Your task to perform on an android device: check the backup settings in the google photos Image 0: 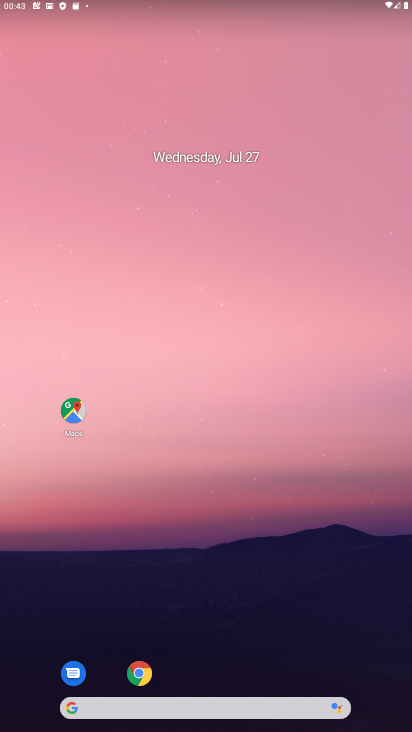
Step 0: drag from (211, 666) to (205, 209)
Your task to perform on an android device: check the backup settings in the google photos Image 1: 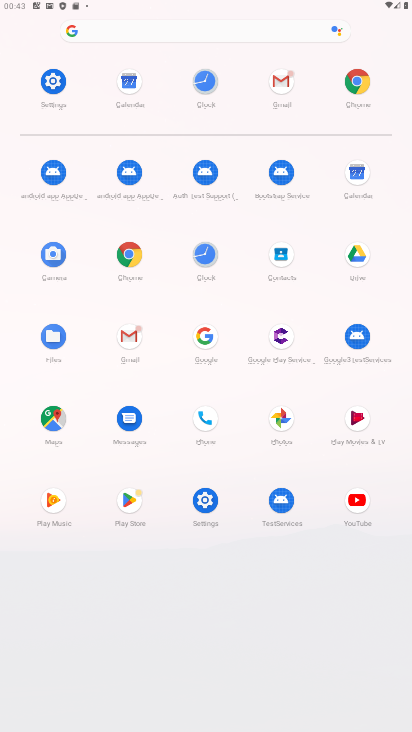
Step 1: click (287, 414)
Your task to perform on an android device: check the backup settings in the google photos Image 2: 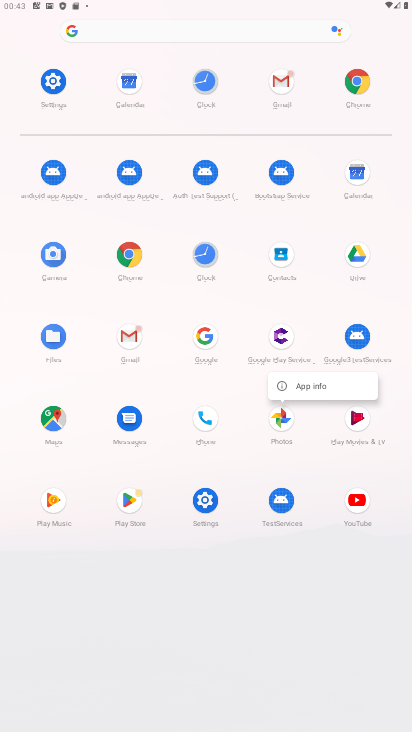
Step 2: click (287, 416)
Your task to perform on an android device: check the backup settings in the google photos Image 3: 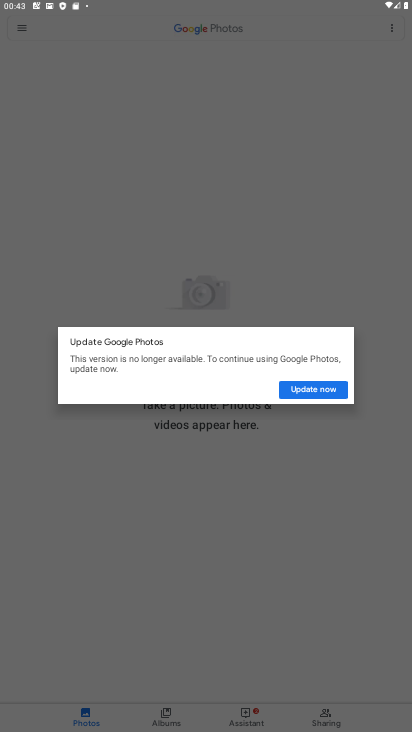
Step 3: click (290, 388)
Your task to perform on an android device: check the backup settings in the google photos Image 4: 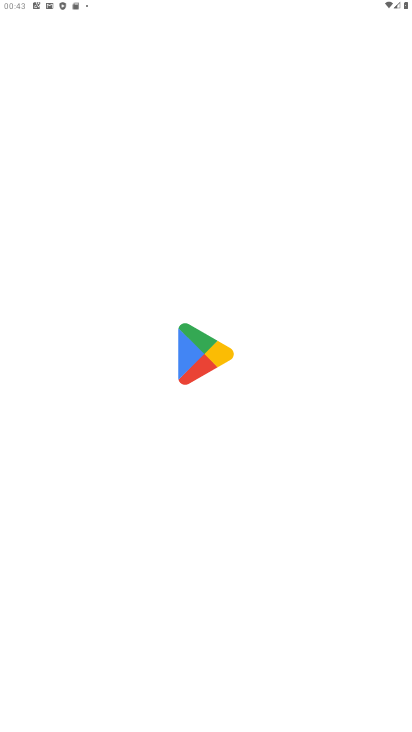
Step 4: press back button
Your task to perform on an android device: check the backup settings in the google photos Image 5: 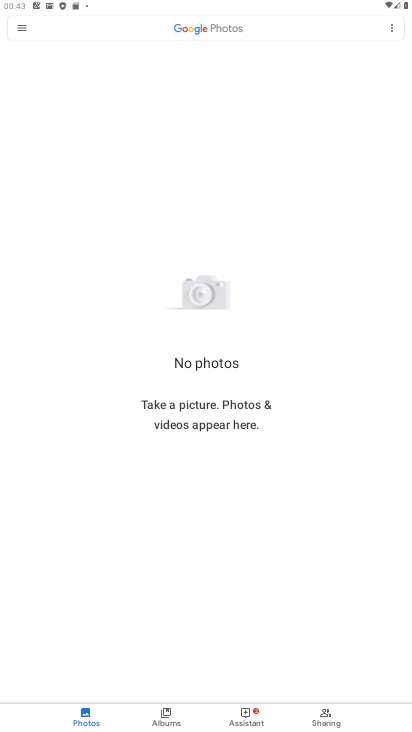
Step 5: click (22, 22)
Your task to perform on an android device: check the backup settings in the google photos Image 6: 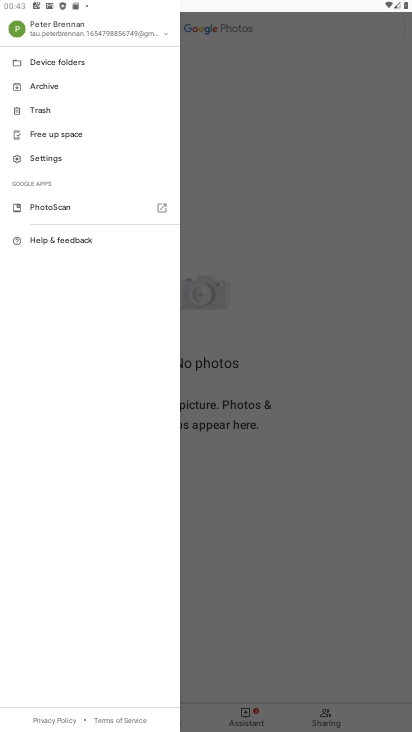
Step 6: click (38, 163)
Your task to perform on an android device: check the backup settings in the google photos Image 7: 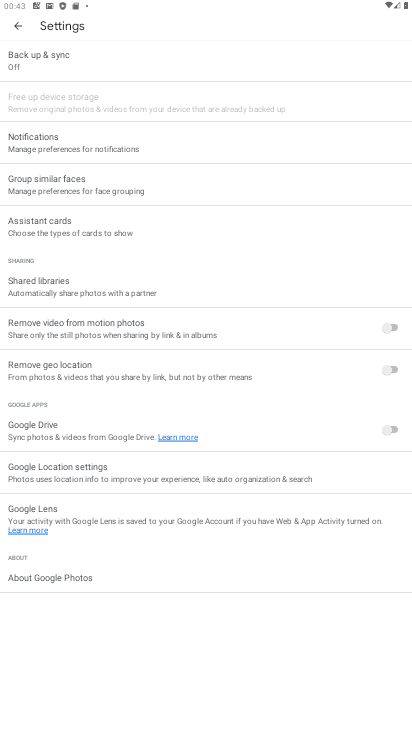
Step 7: click (49, 58)
Your task to perform on an android device: check the backup settings in the google photos Image 8: 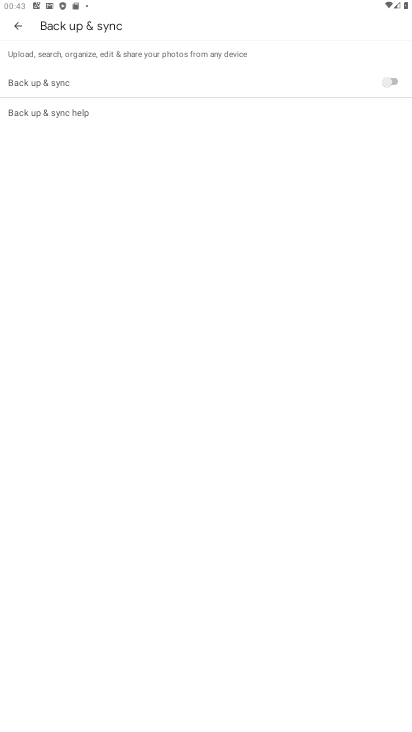
Step 8: click (50, 70)
Your task to perform on an android device: check the backup settings in the google photos Image 9: 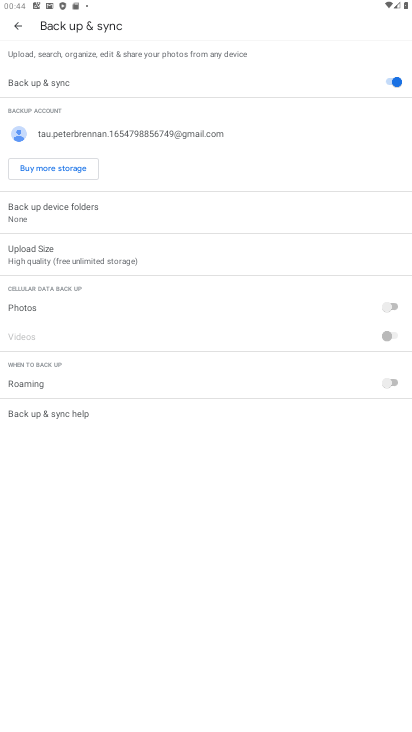
Step 9: task complete